Your task to perform on an android device: open chrome and create a bookmark for the current page Image 0: 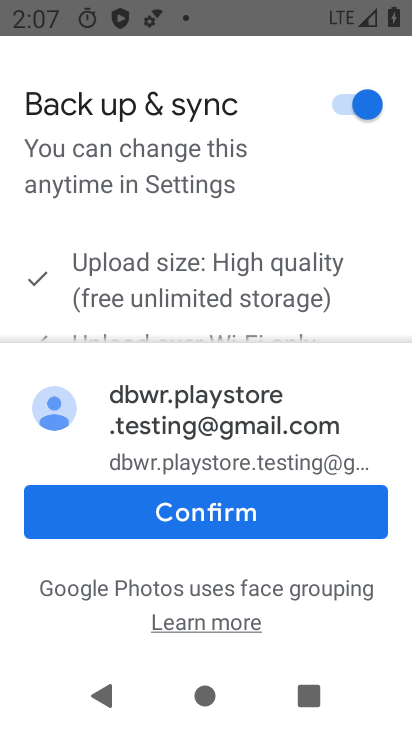
Step 0: press home button
Your task to perform on an android device: open chrome and create a bookmark for the current page Image 1: 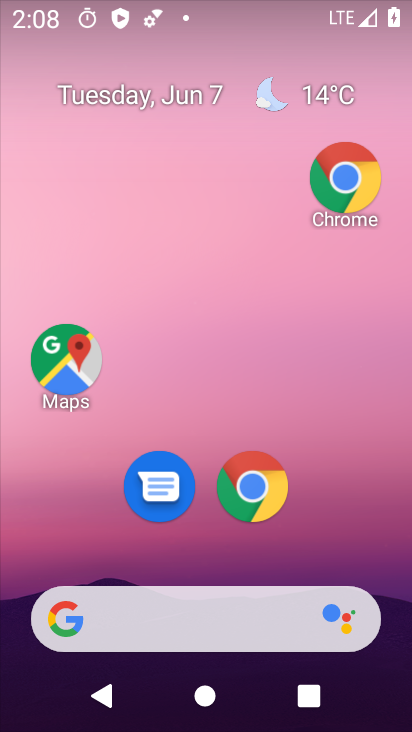
Step 1: click (250, 490)
Your task to perform on an android device: open chrome and create a bookmark for the current page Image 2: 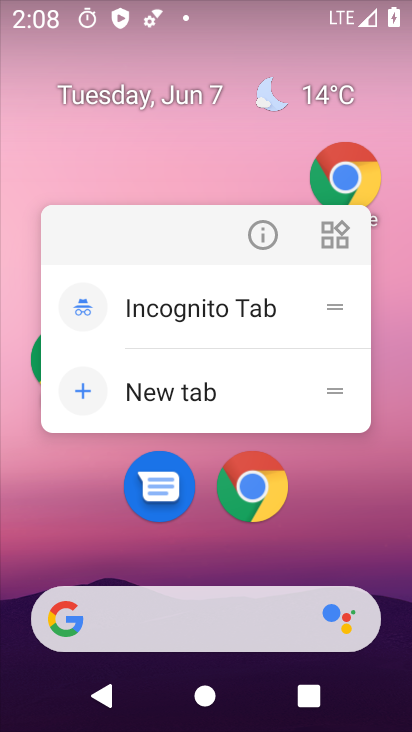
Step 2: click (250, 490)
Your task to perform on an android device: open chrome and create a bookmark for the current page Image 3: 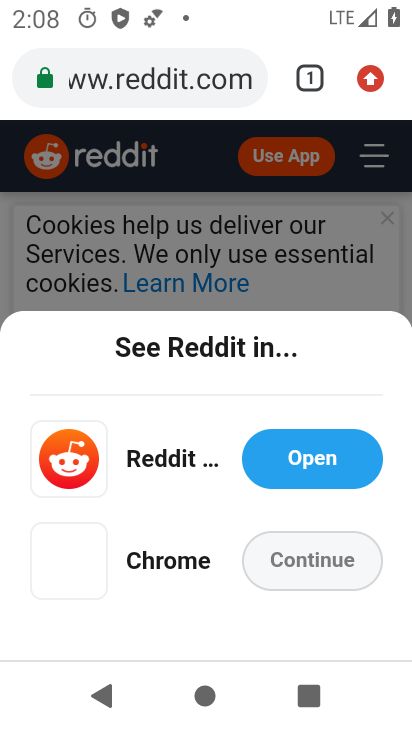
Step 3: task complete